Your task to perform on an android device: Do I have any events tomorrow? Image 0: 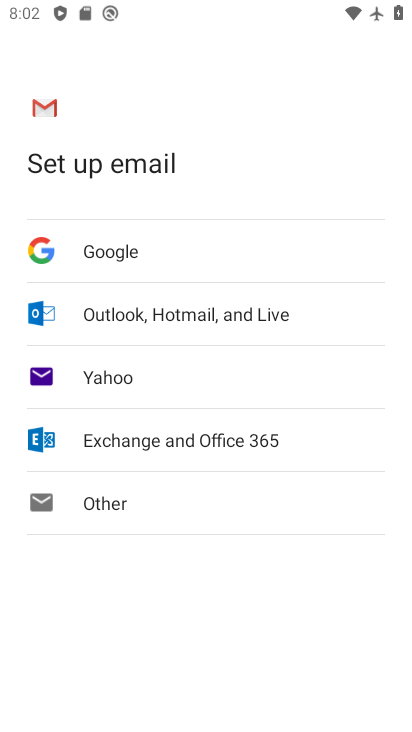
Step 0: press home button
Your task to perform on an android device: Do I have any events tomorrow? Image 1: 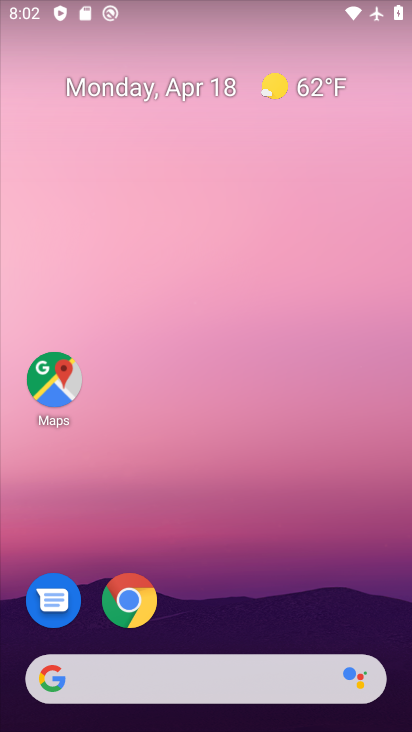
Step 1: drag from (212, 635) to (230, 66)
Your task to perform on an android device: Do I have any events tomorrow? Image 2: 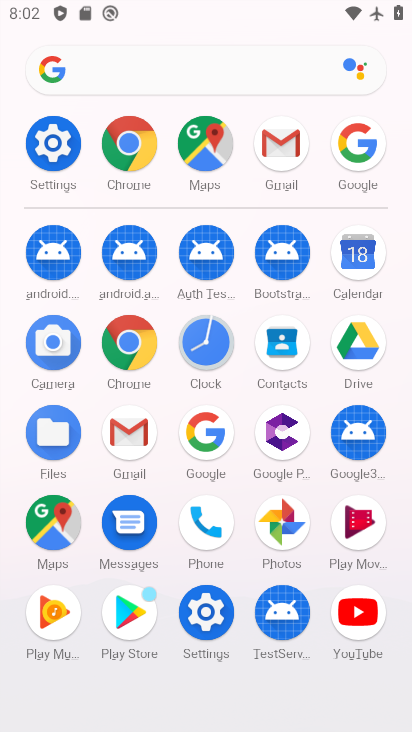
Step 2: click (348, 262)
Your task to perform on an android device: Do I have any events tomorrow? Image 3: 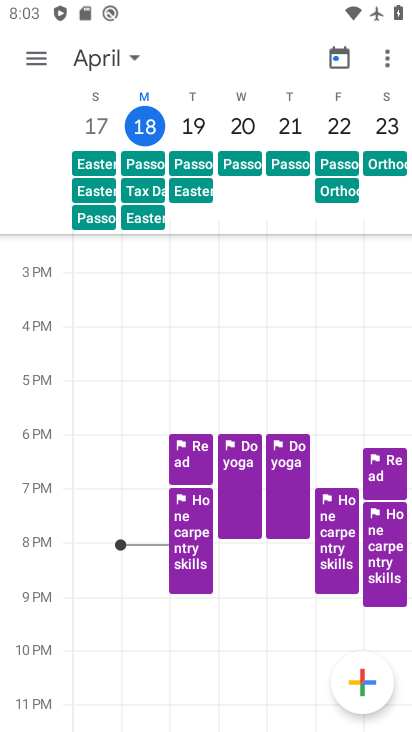
Step 3: click (190, 130)
Your task to perform on an android device: Do I have any events tomorrow? Image 4: 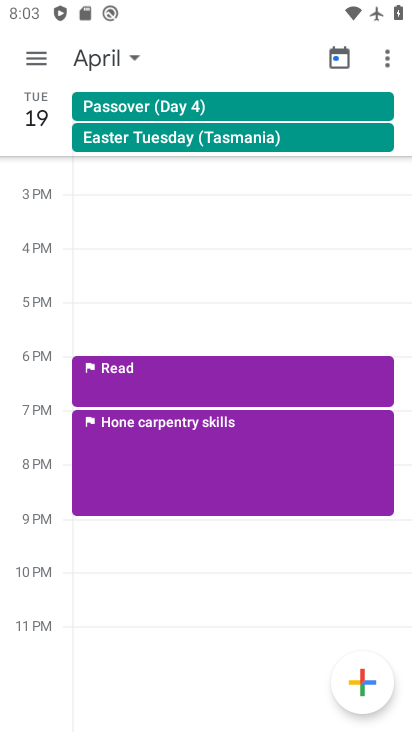
Step 4: task complete